Your task to perform on an android device: Search for Italian restaurants on Maps Image 0: 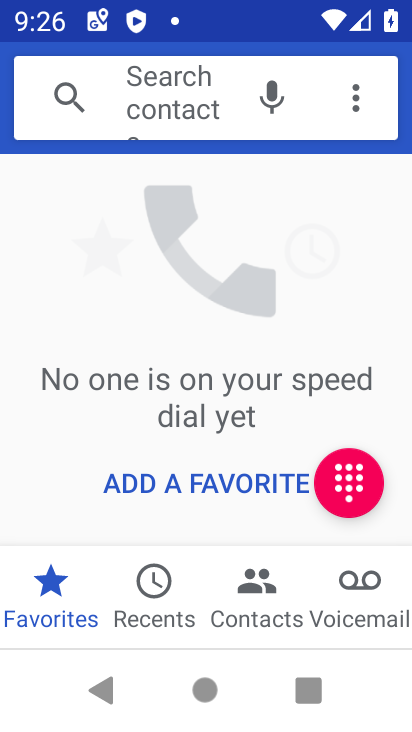
Step 0: press home button
Your task to perform on an android device: Search for Italian restaurants on Maps Image 1: 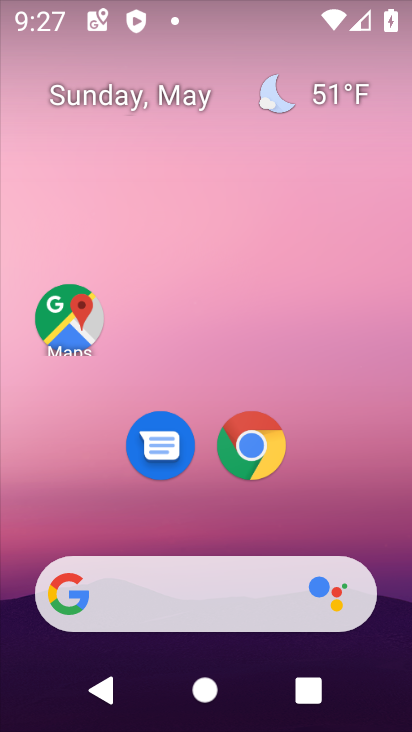
Step 1: click (56, 329)
Your task to perform on an android device: Search for Italian restaurants on Maps Image 2: 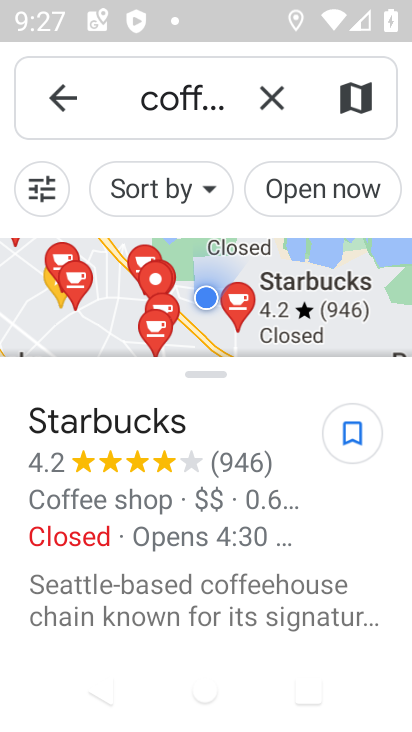
Step 2: click (272, 103)
Your task to perform on an android device: Search for Italian restaurants on Maps Image 3: 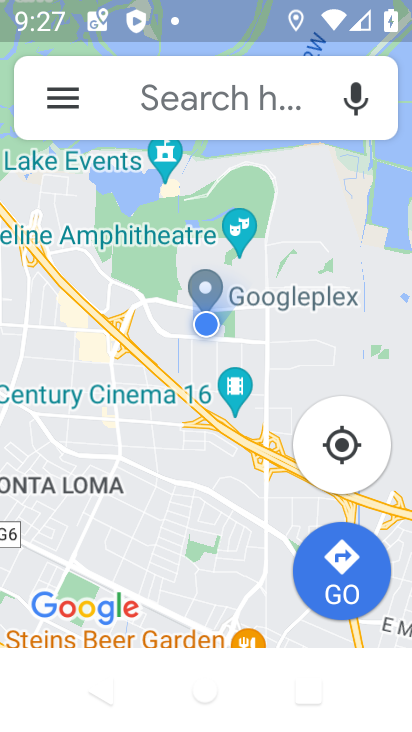
Step 3: click (148, 77)
Your task to perform on an android device: Search for Italian restaurants on Maps Image 4: 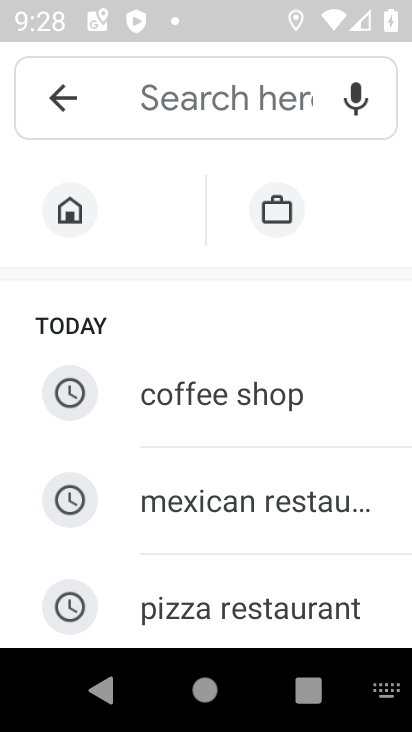
Step 4: type "italian restaurants"
Your task to perform on an android device: Search for Italian restaurants on Maps Image 5: 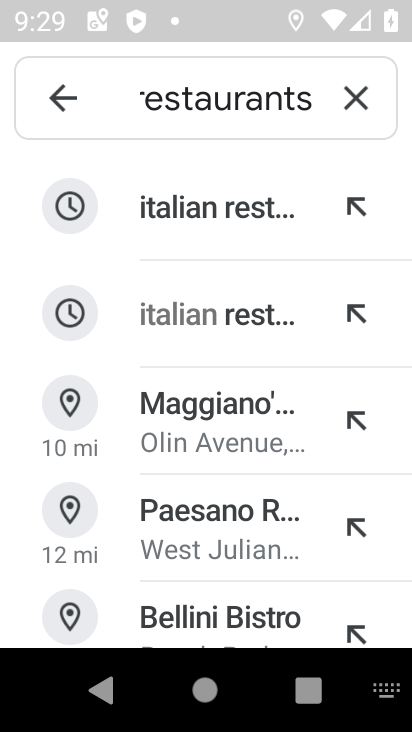
Step 5: click (209, 203)
Your task to perform on an android device: Search for Italian restaurants on Maps Image 6: 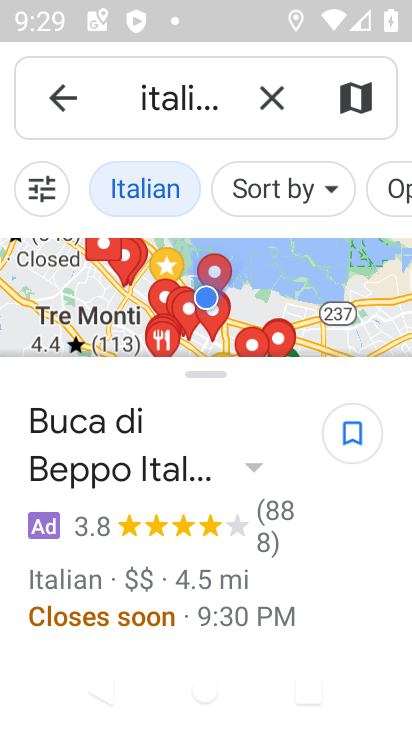
Step 6: task complete